Your task to perform on an android device: empty trash in google photos Image 0: 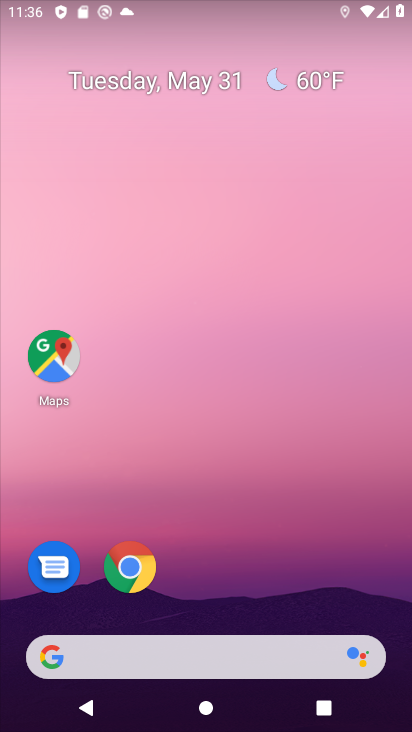
Step 0: drag from (157, 663) to (18, 0)
Your task to perform on an android device: empty trash in google photos Image 1: 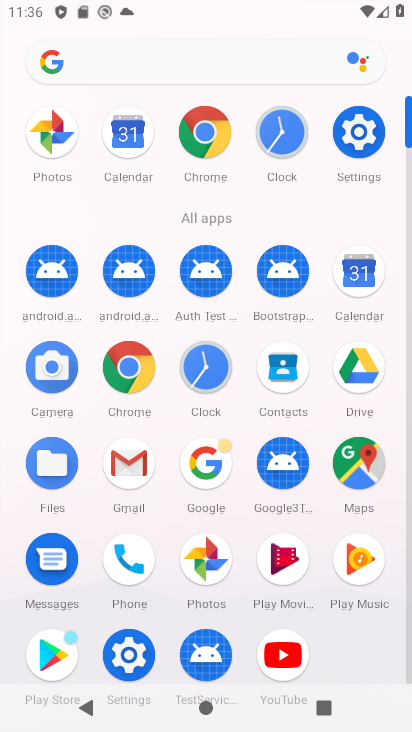
Step 1: click (197, 557)
Your task to perform on an android device: empty trash in google photos Image 2: 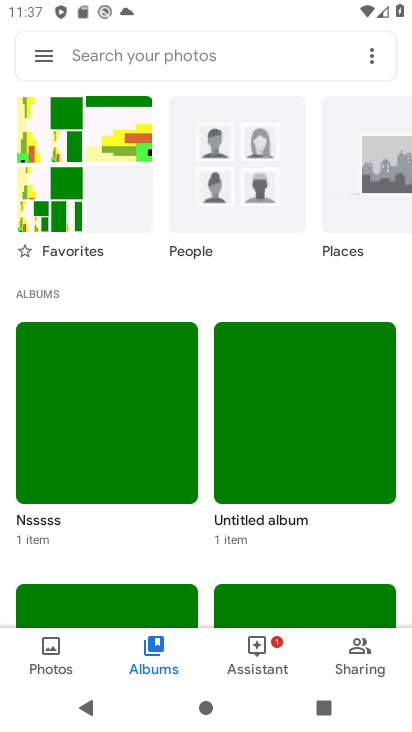
Step 2: click (49, 52)
Your task to perform on an android device: empty trash in google photos Image 3: 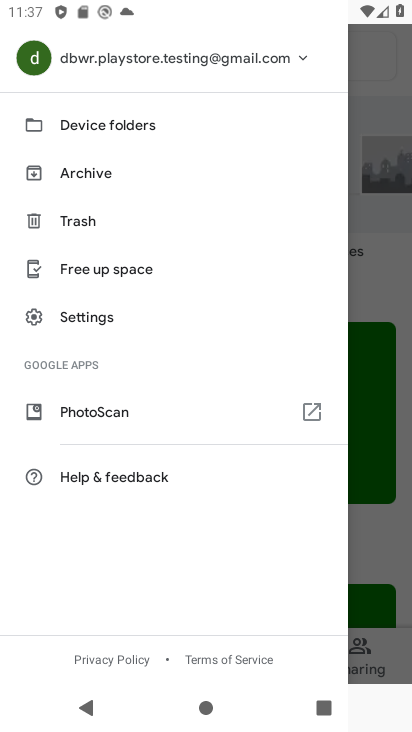
Step 3: click (78, 221)
Your task to perform on an android device: empty trash in google photos Image 4: 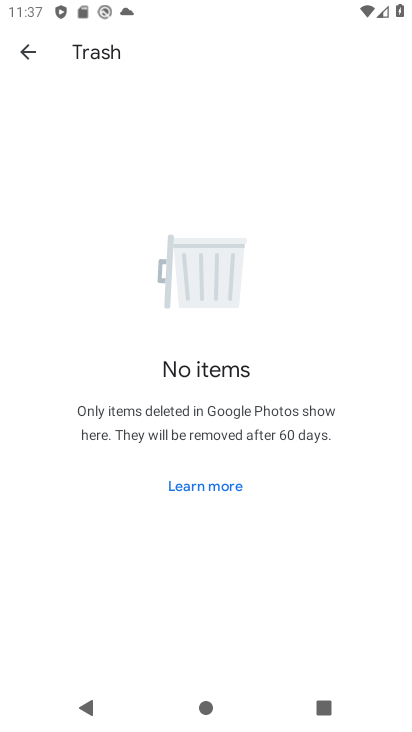
Step 4: task complete